Your task to perform on an android device: Go to accessibility settings Image 0: 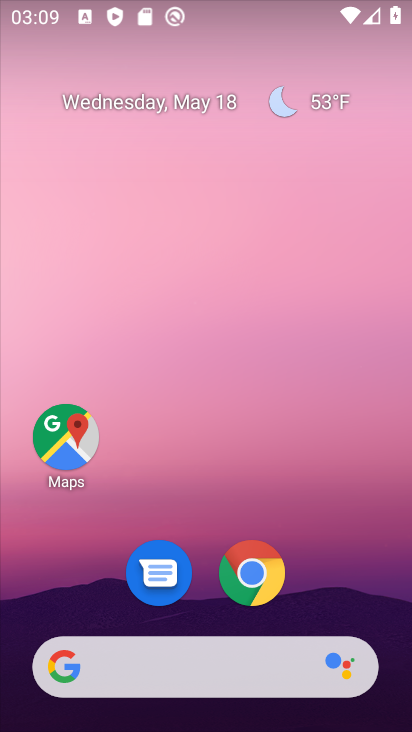
Step 0: drag from (213, 607) to (215, 198)
Your task to perform on an android device: Go to accessibility settings Image 1: 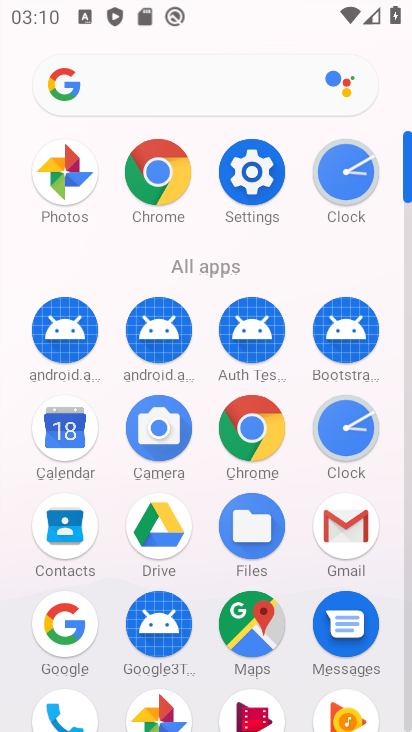
Step 1: click (271, 187)
Your task to perform on an android device: Go to accessibility settings Image 2: 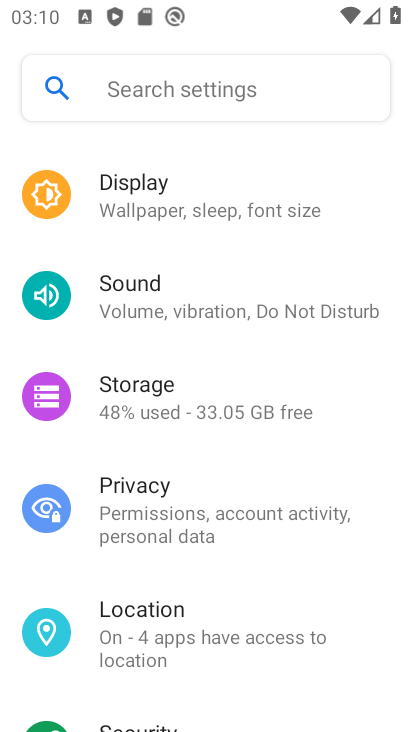
Step 2: drag from (233, 626) to (255, 268)
Your task to perform on an android device: Go to accessibility settings Image 3: 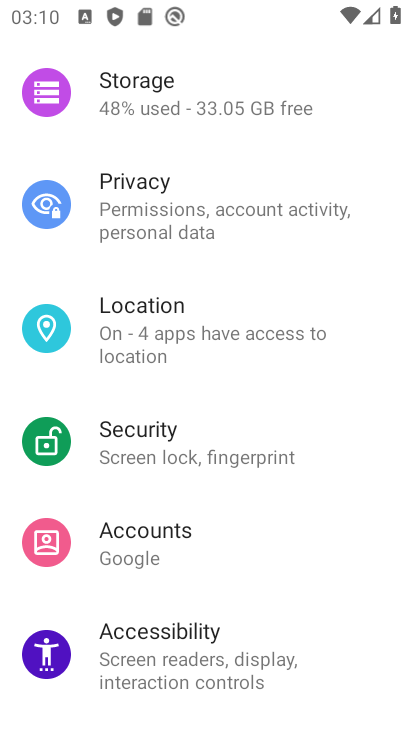
Step 3: drag from (227, 587) to (256, 321)
Your task to perform on an android device: Go to accessibility settings Image 4: 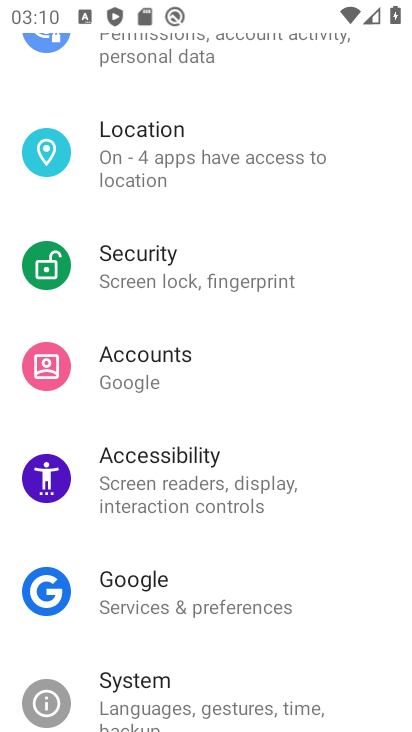
Step 4: click (197, 462)
Your task to perform on an android device: Go to accessibility settings Image 5: 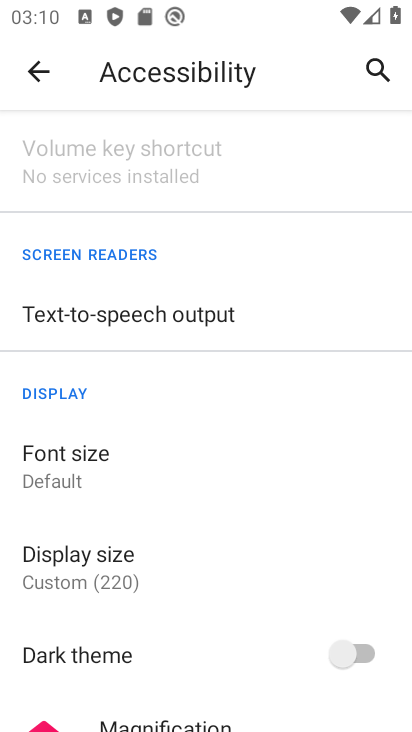
Step 5: task complete